Your task to perform on an android device: Open Amazon Image 0: 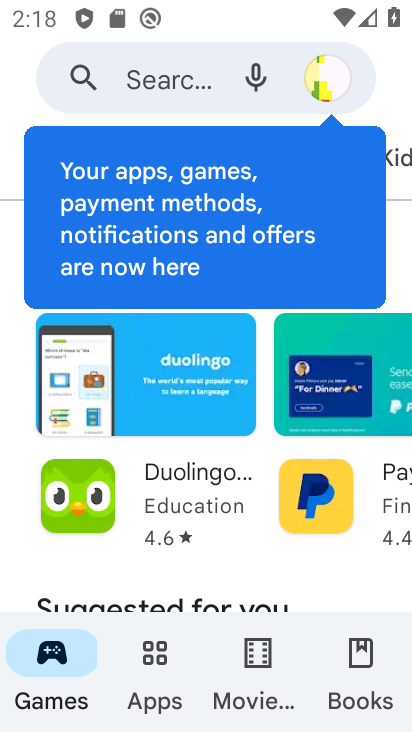
Step 0: press home button
Your task to perform on an android device: Open Amazon Image 1: 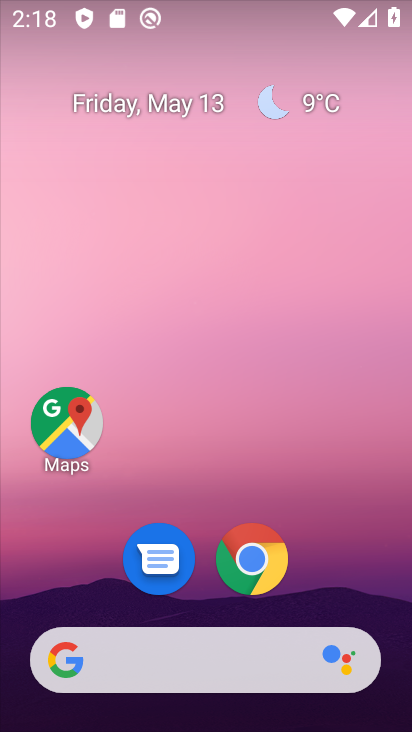
Step 1: click (259, 572)
Your task to perform on an android device: Open Amazon Image 2: 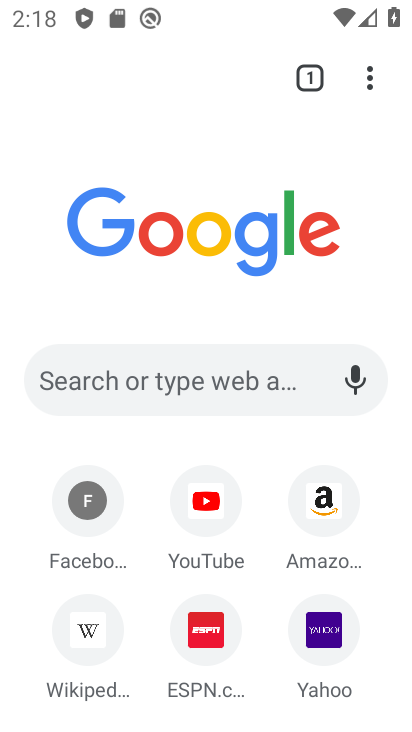
Step 2: click (314, 501)
Your task to perform on an android device: Open Amazon Image 3: 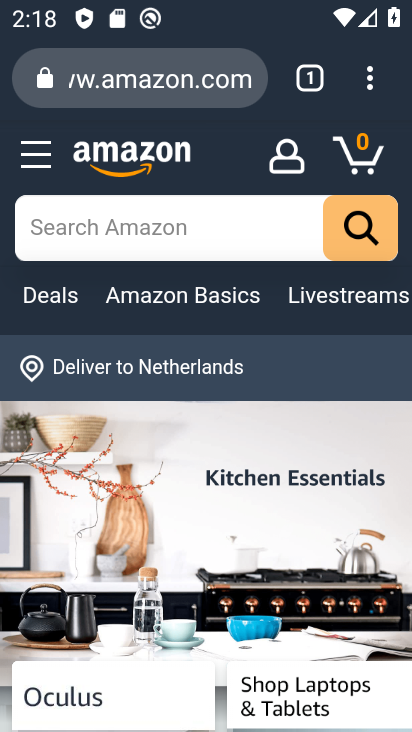
Step 3: task complete